Your task to perform on an android device: Set the phone to "Do not disturb". Image 0: 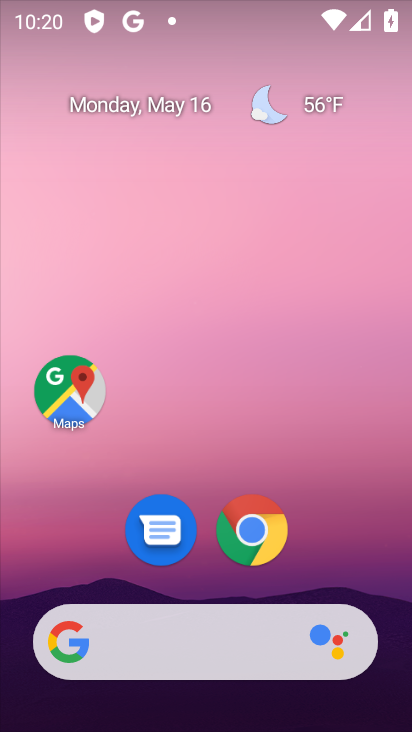
Step 0: drag from (374, 543) to (374, 188)
Your task to perform on an android device: Set the phone to "Do not disturb". Image 1: 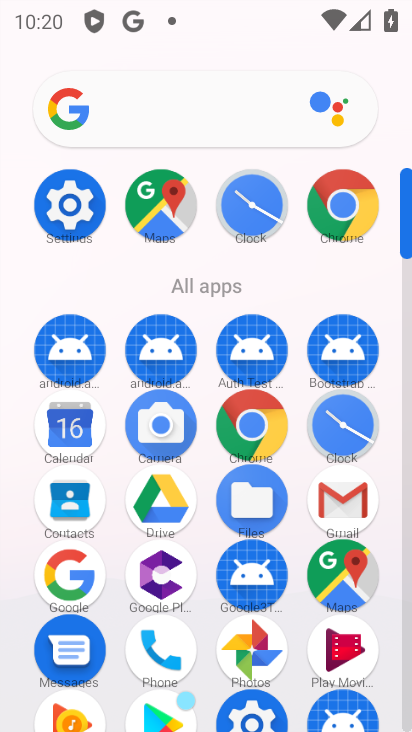
Step 1: click (90, 227)
Your task to perform on an android device: Set the phone to "Do not disturb". Image 2: 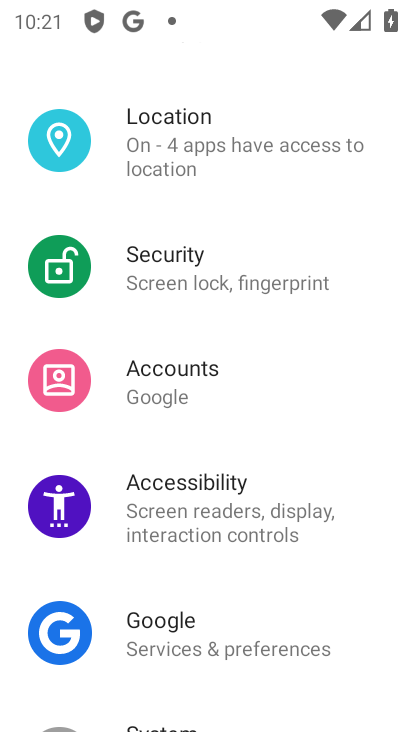
Step 2: drag from (365, 614) to (374, 463)
Your task to perform on an android device: Set the phone to "Do not disturb". Image 3: 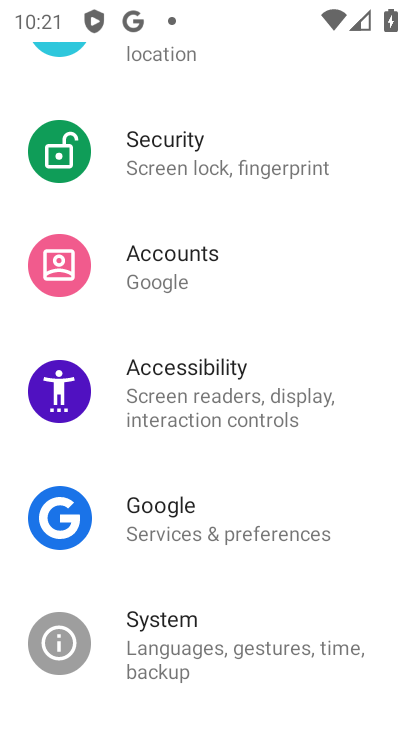
Step 3: drag from (346, 677) to (378, 476)
Your task to perform on an android device: Set the phone to "Do not disturb". Image 4: 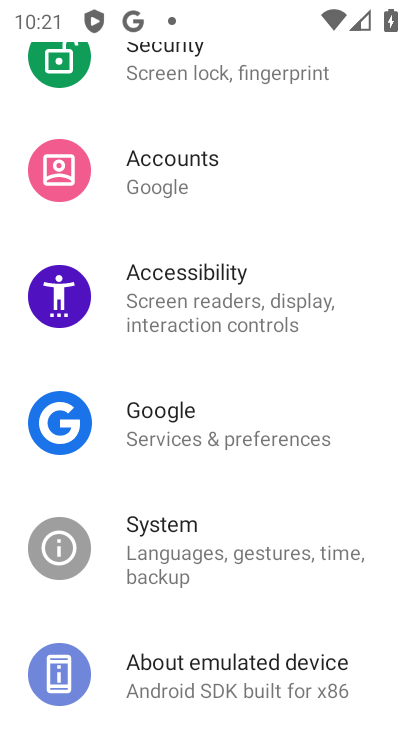
Step 4: drag from (385, 393) to (369, 504)
Your task to perform on an android device: Set the phone to "Do not disturb". Image 5: 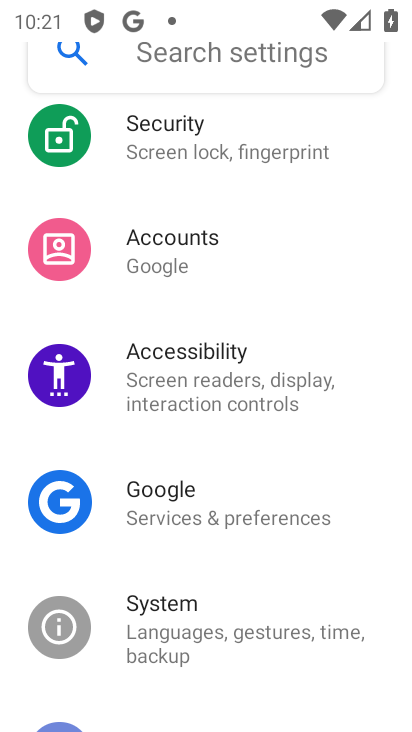
Step 5: drag from (358, 342) to (348, 457)
Your task to perform on an android device: Set the phone to "Do not disturb". Image 6: 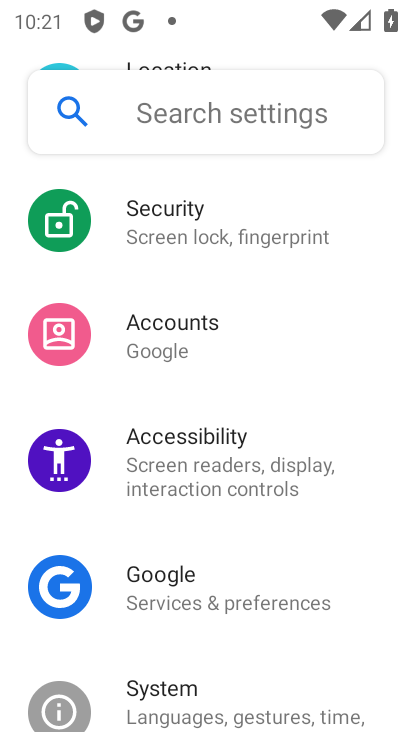
Step 6: drag from (387, 342) to (373, 493)
Your task to perform on an android device: Set the phone to "Do not disturb". Image 7: 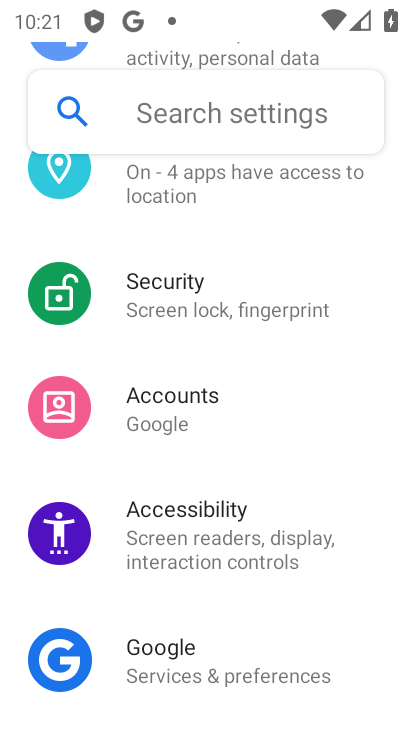
Step 7: drag from (370, 279) to (359, 465)
Your task to perform on an android device: Set the phone to "Do not disturb". Image 8: 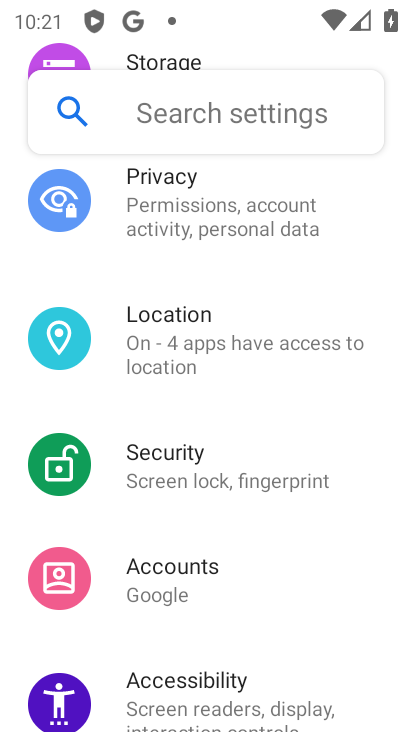
Step 8: drag from (379, 255) to (373, 431)
Your task to perform on an android device: Set the phone to "Do not disturb". Image 9: 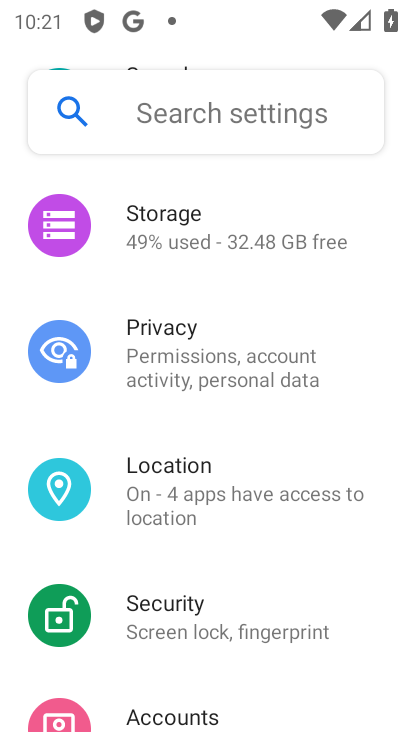
Step 9: drag from (368, 312) to (354, 443)
Your task to perform on an android device: Set the phone to "Do not disturb". Image 10: 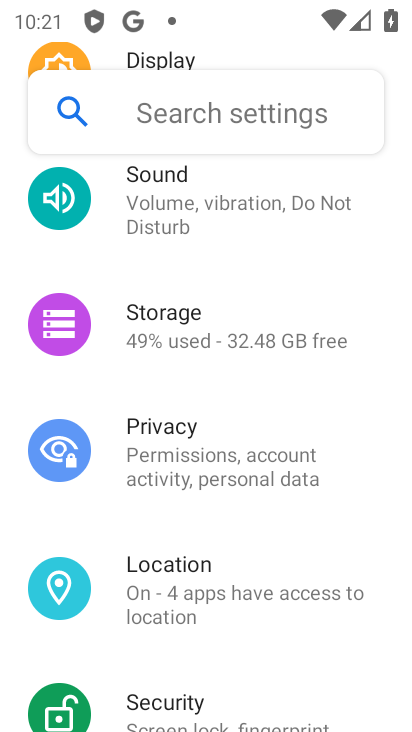
Step 10: drag from (366, 275) to (367, 395)
Your task to perform on an android device: Set the phone to "Do not disturb". Image 11: 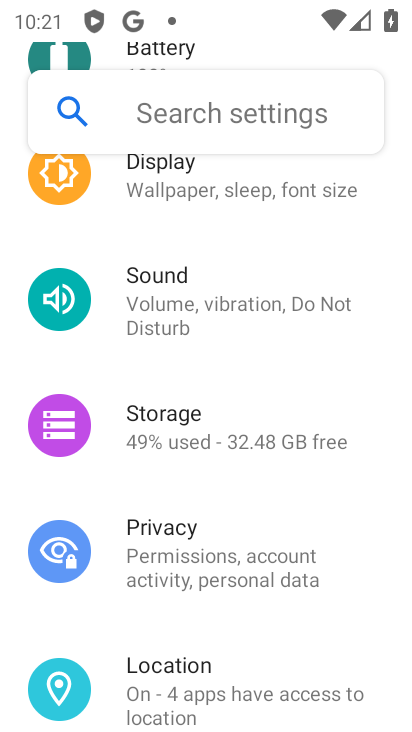
Step 11: drag from (366, 269) to (361, 397)
Your task to perform on an android device: Set the phone to "Do not disturb". Image 12: 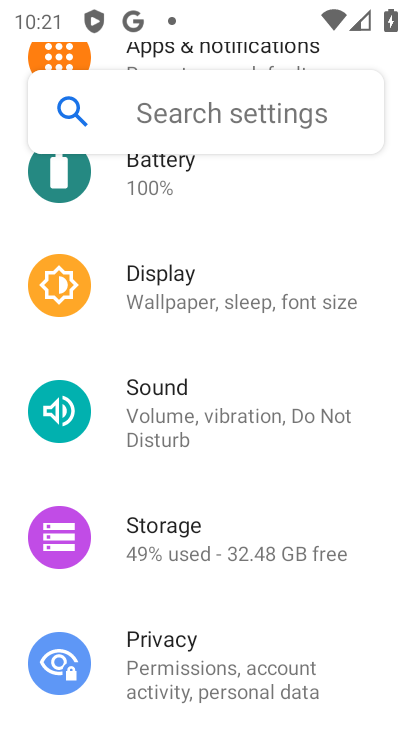
Step 12: click (267, 421)
Your task to perform on an android device: Set the phone to "Do not disturb". Image 13: 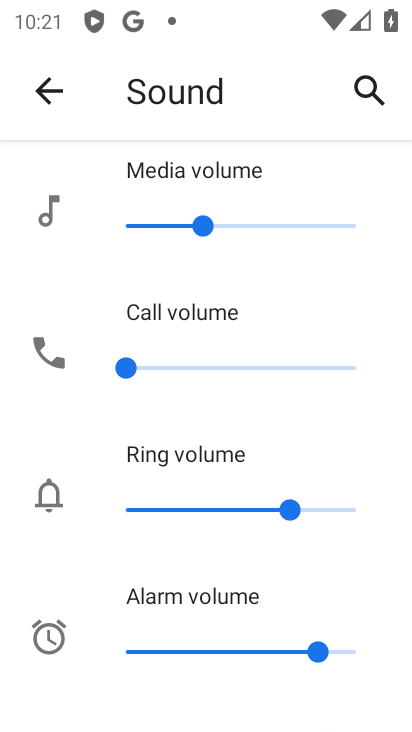
Step 13: drag from (252, 575) to (268, 343)
Your task to perform on an android device: Set the phone to "Do not disturb". Image 14: 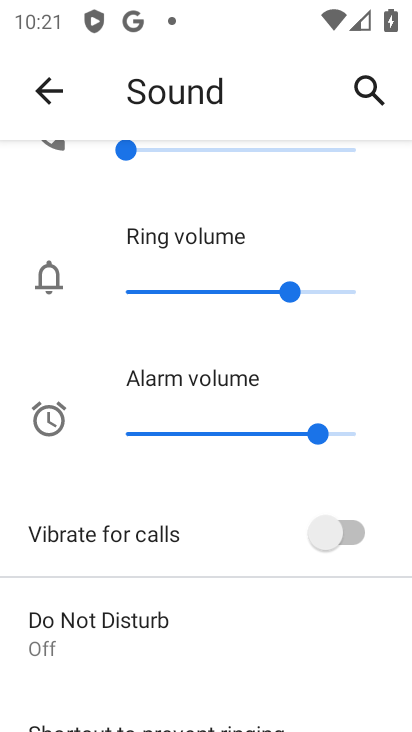
Step 14: drag from (228, 601) to (258, 489)
Your task to perform on an android device: Set the phone to "Do not disturb". Image 15: 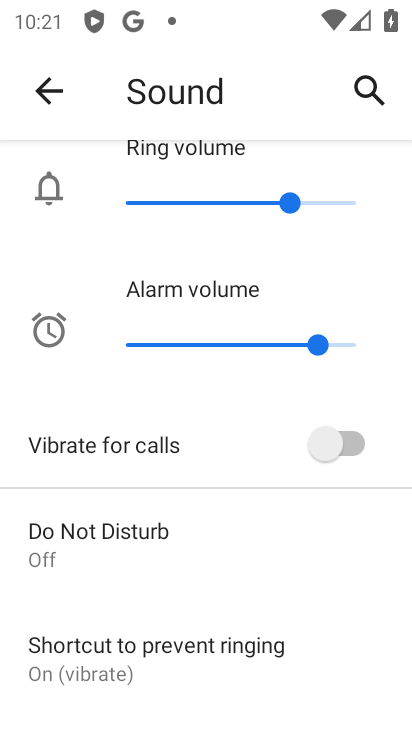
Step 15: click (133, 548)
Your task to perform on an android device: Set the phone to "Do not disturb". Image 16: 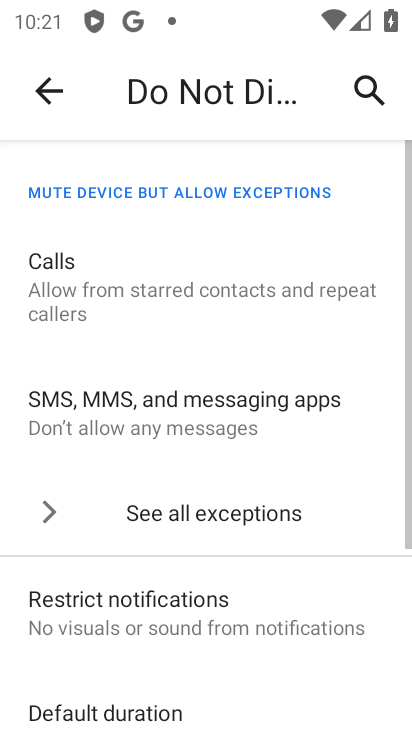
Step 16: drag from (198, 620) to (220, 454)
Your task to perform on an android device: Set the phone to "Do not disturb". Image 17: 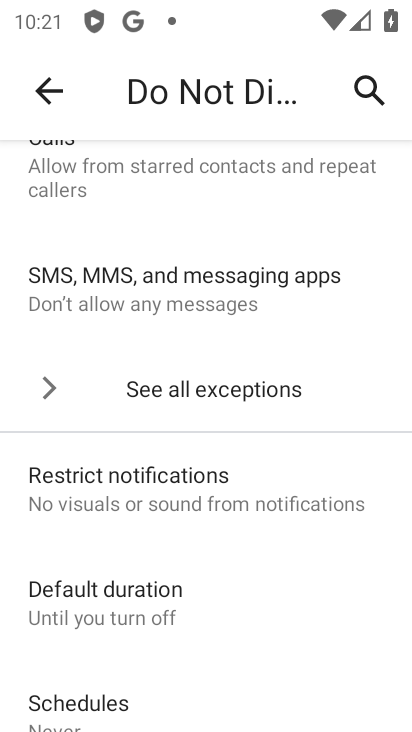
Step 17: drag from (222, 620) to (252, 518)
Your task to perform on an android device: Set the phone to "Do not disturb". Image 18: 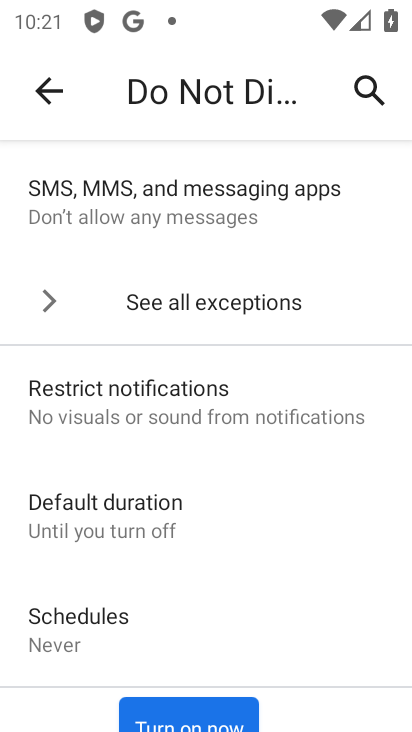
Step 18: drag from (230, 660) to (264, 530)
Your task to perform on an android device: Set the phone to "Do not disturb". Image 19: 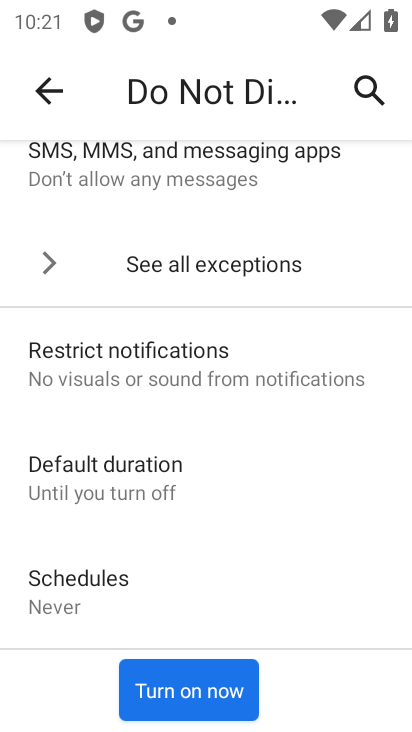
Step 19: click (232, 670)
Your task to perform on an android device: Set the phone to "Do not disturb". Image 20: 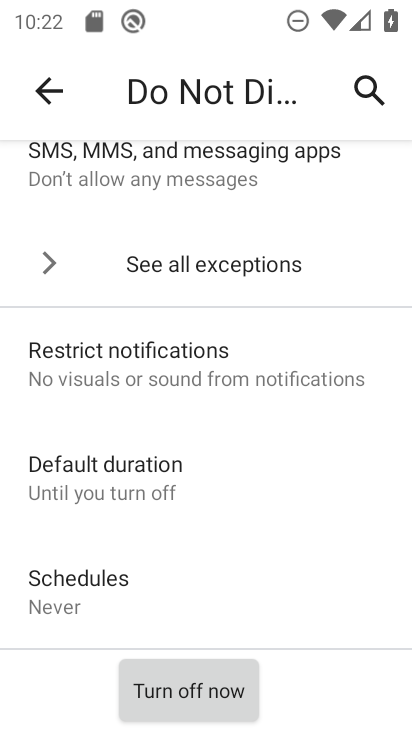
Step 20: task complete